Your task to perform on an android device: Search for seafood restaurants on Google Maps Image 0: 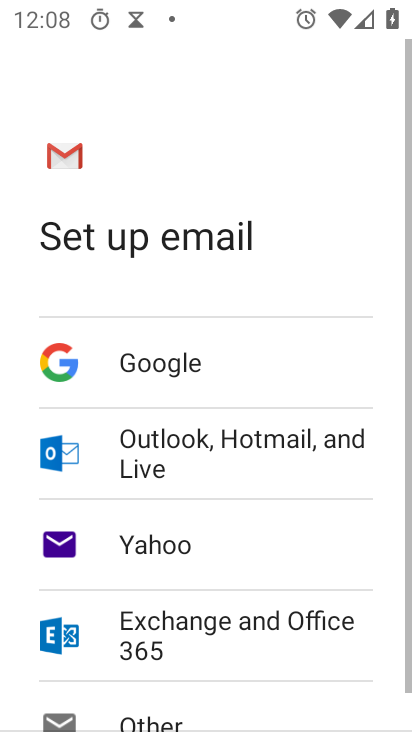
Step 0: press home button
Your task to perform on an android device: Search for seafood restaurants on Google Maps Image 1: 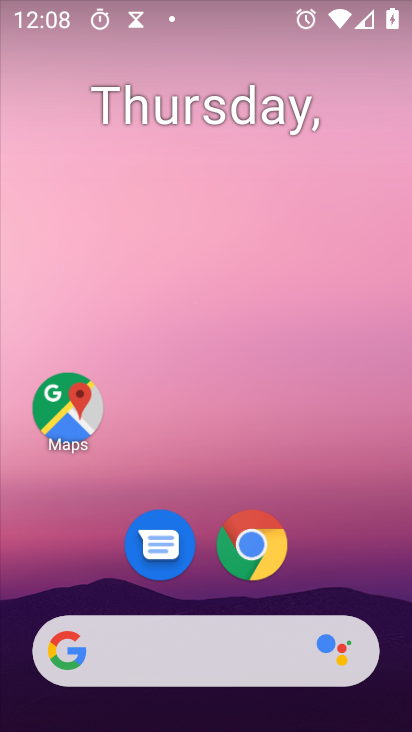
Step 1: click (72, 413)
Your task to perform on an android device: Search for seafood restaurants on Google Maps Image 2: 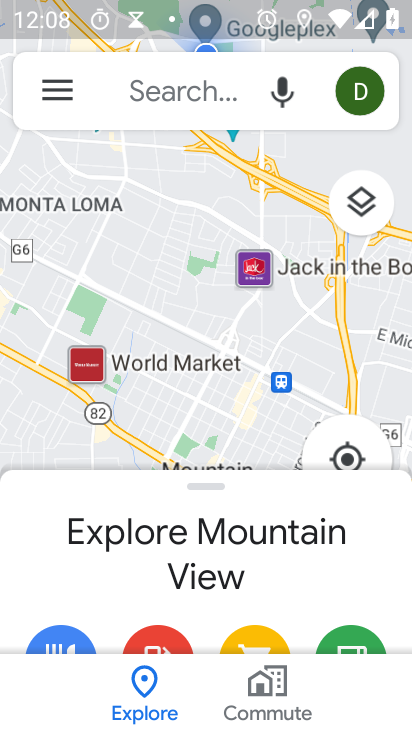
Step 2: click (211, 99)
Your task to perform on an android device: Search for seafood restaurants on Google Maps Image 3: 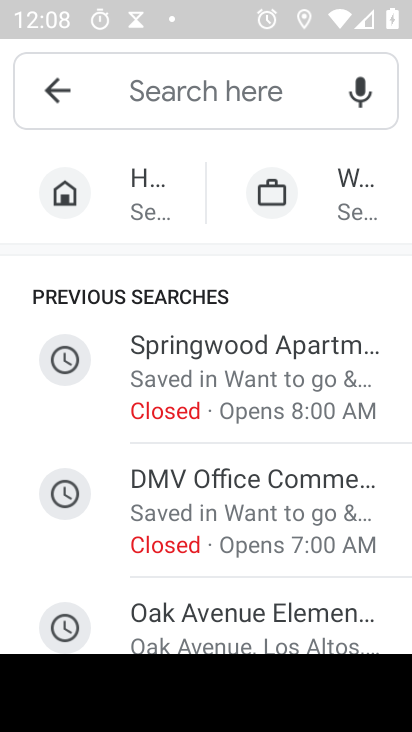
Step 3: drag from (231, 559) to (347, 190)
Your task to perform on an android device: Search for seafood restaurants on Google Maps Image 4: 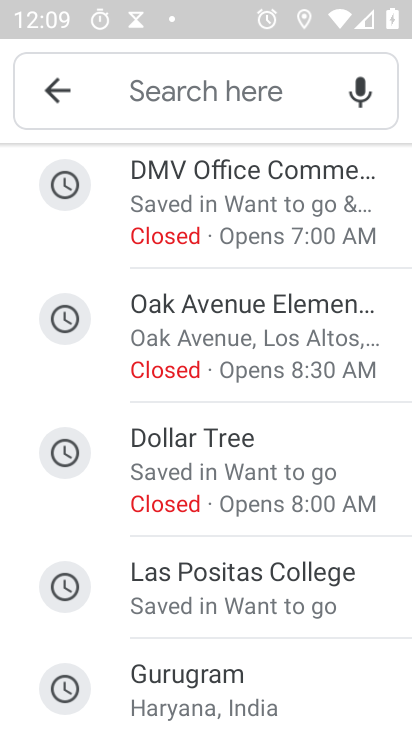
Step 4: click (193, 97)
Your task to perform on an android device: Search for seafood restaurants on Google Maps Image 5: 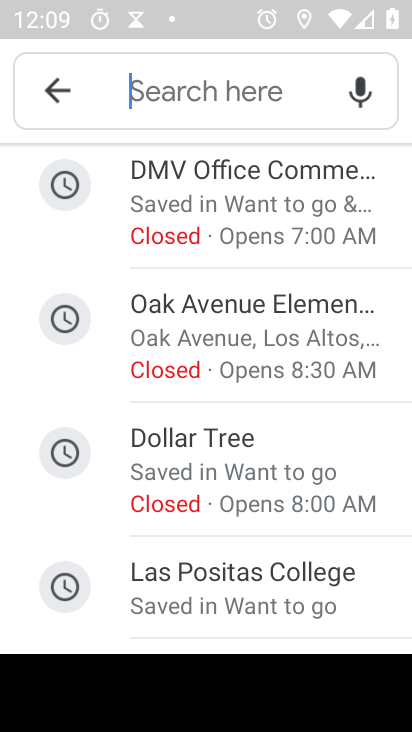
Step 5: type "seafood"
Your task to perform on an android device: Search for seafood restaurants on Google Maps Image 6: 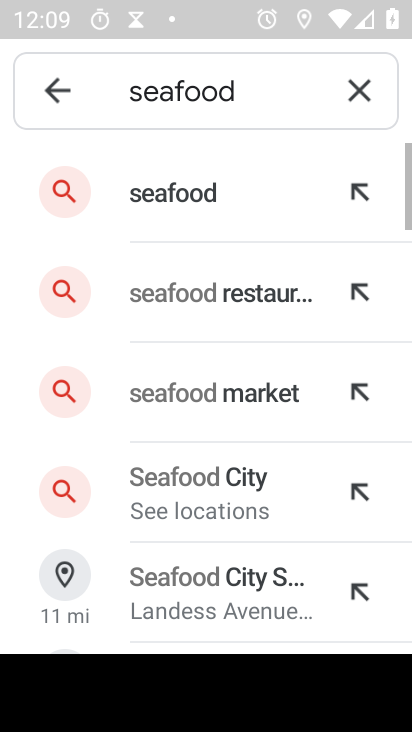
Step 6: click (213, 301)
Your task to perform on an android device: Search for seafood restaurants on Google Maps Image 7: 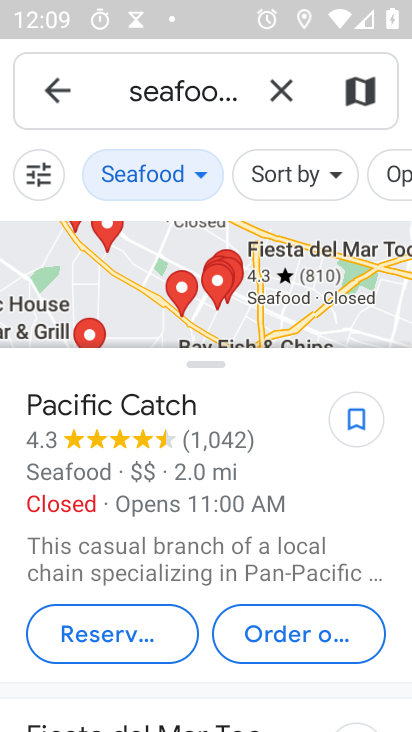
Step 7: task complete